Your task to perform on an android device: turn off smart reply in the gmail app Image 0: 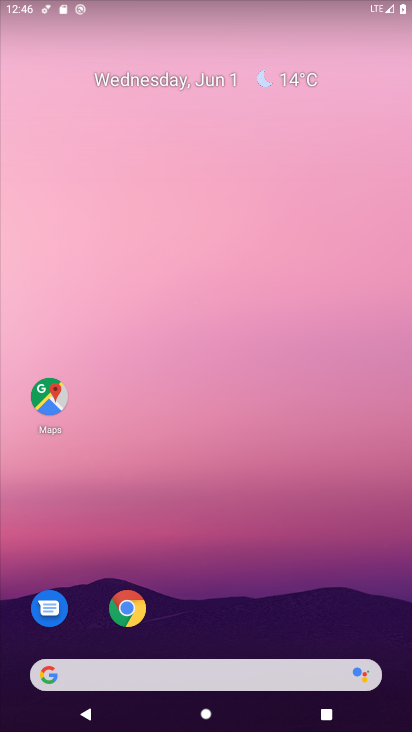
Step 0: drag from (227, 642) to (317, 10)
Your task to perform on an android device: turn off smart reply in the gmail app Image 1: 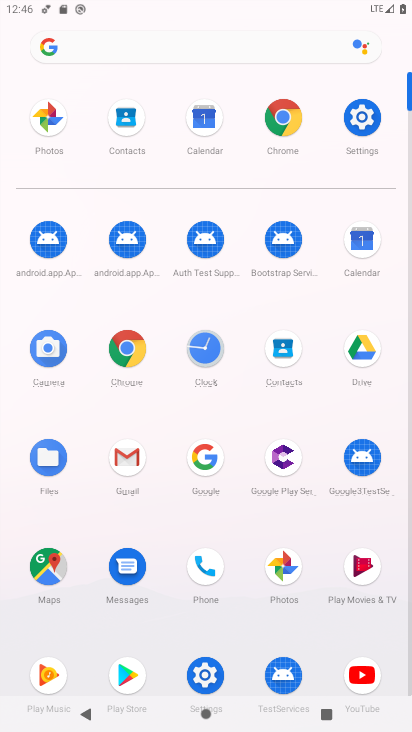
Step 1: click (126, 467)
Your task to perform on an android device: turn off smart reply in the gmail app Image 2: 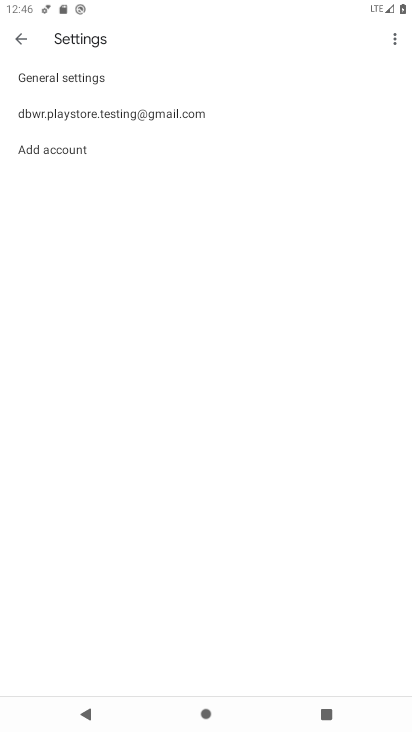
Step 2: click (64, 105)
Your task to perform on an android device: turn off smart reply in the gmail app Image 3: 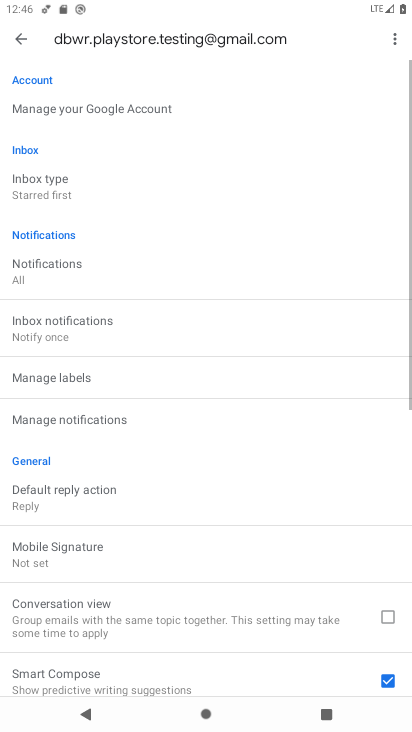
Step 3: drag from (172, 598) to (214, 11)
Your task to perform on an android device: turn off smart reply in the gmail app Image 4: 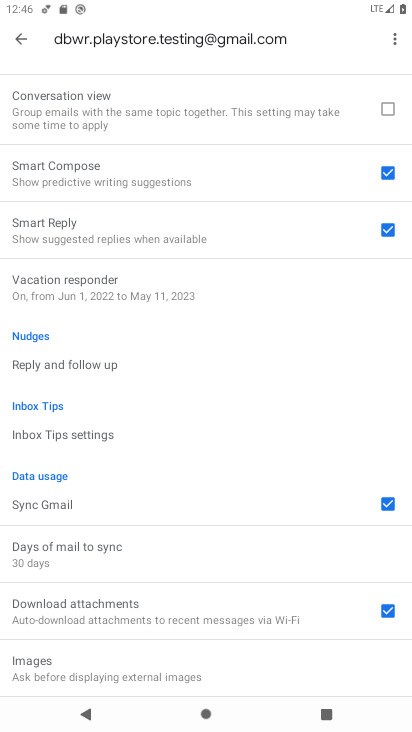
Step 4: click (373, 229)
Your task to perform on an android device: turn off smart reply in the gmail app Image 5: 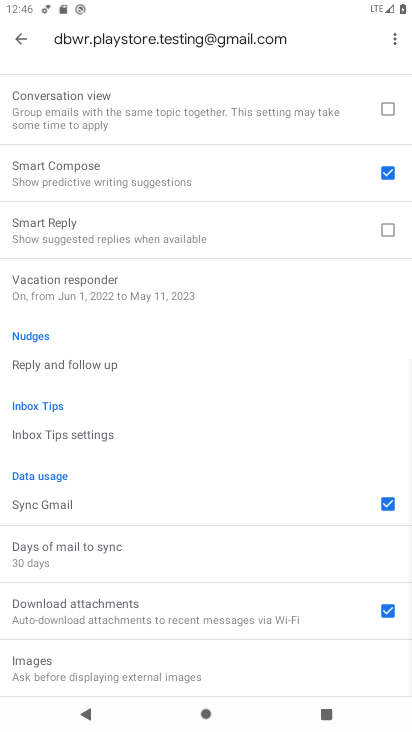
Step 5: task complete